Your task to perform on an android device: turn smart compose on in the gmail app Image 0: 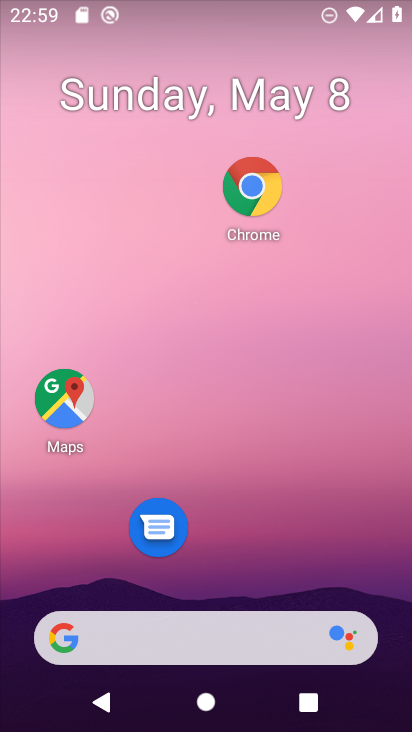
Step 0: drag from (293, 551) to (306, 298)
Your task to perform on an android device: turn smart compose on in the gmail app Image 1: 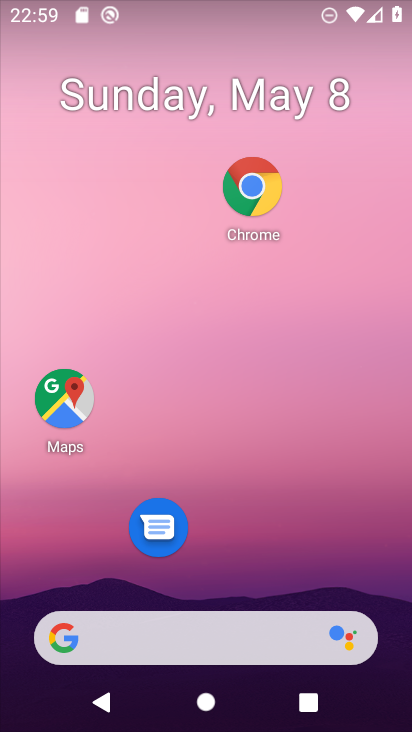
Step 1: drag from (254, 563) to (284, 332)
Your task to perform on an android device: turn smart compose on in the gmail app Image 2: 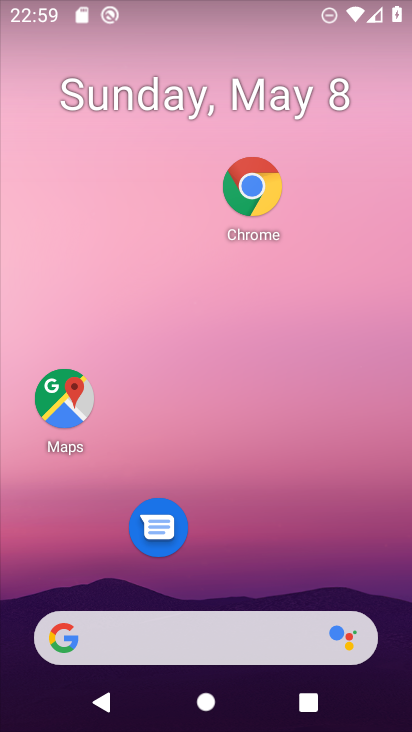
Step 2: drag from (252, 559) to (296, 287)
Your task to perform on an android device: turn smart compose on in the gmail app Image 3: 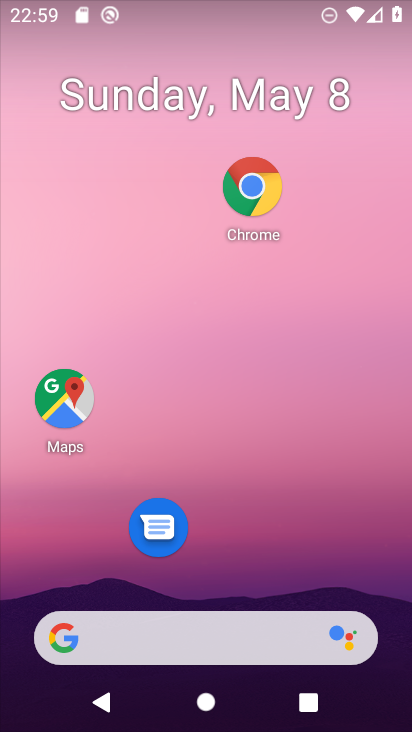
Step 3: drag from (239, 591) to (294, 257)
Your task to perform on an android device: turn smart compose on in the gmail app Image 4: 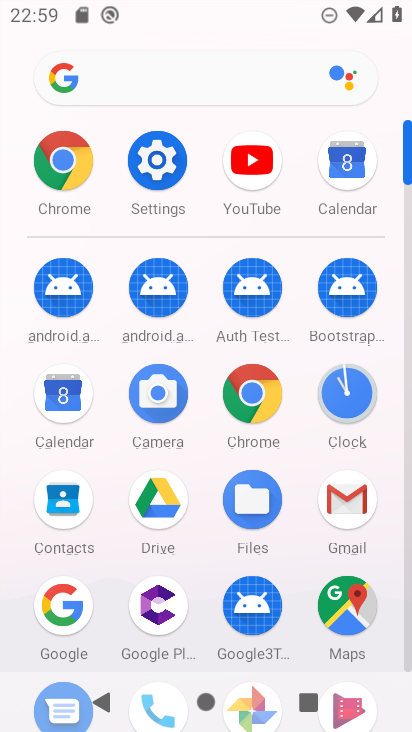
Step 4: click (339, 490)
Your task to perform on an android device: turn smart compose on in the gmail app Image 5: 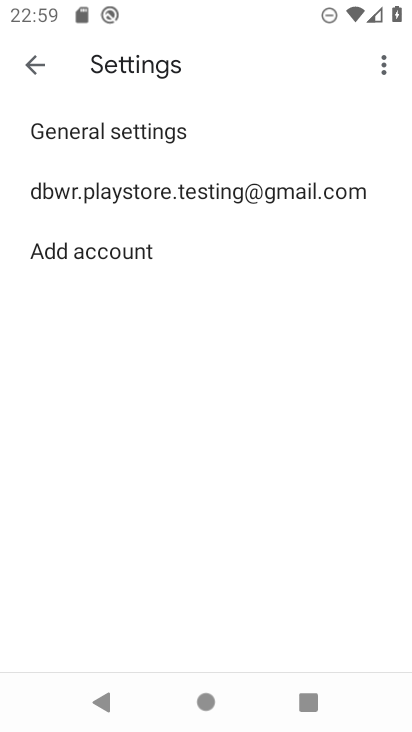
Step 5: click (193, 191)
Your task to perform on an android device: turn smart compose on in the gmail app Image 6: 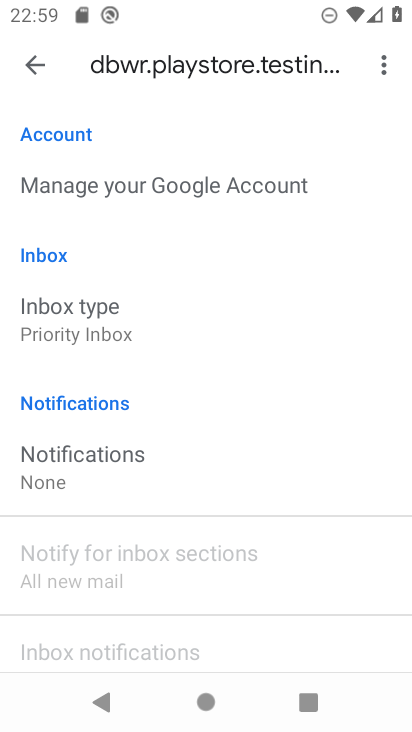
Step 6: task complete